Your task to perform on an android device: Open the stopwatch Image 0: 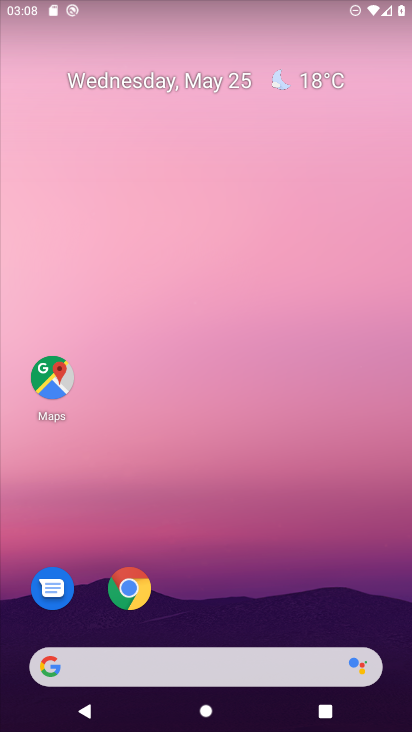
Step 0: drag from (373, 601) to (389, 214)
Your task to perform on an android device: Open the stopwatch Image 1: 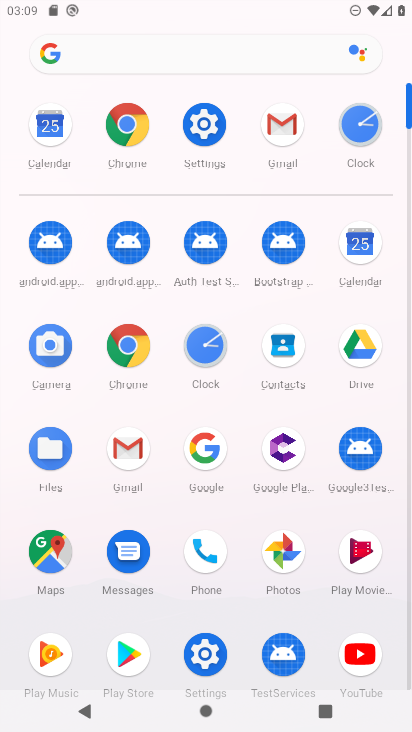
Step 1: click (376, 113)
Your task to perform on an android device: Open the stopwatch Image 2: 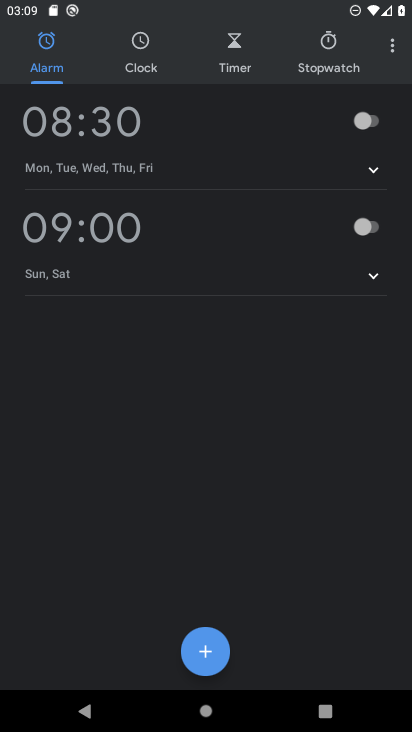
Step 2: click (320, 40)
Your task to perform on an android device: Open the stopwatch Image 3: 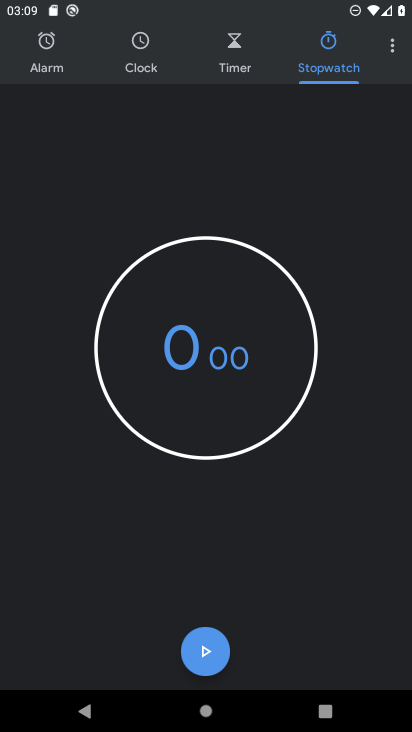
Step 3: task complete